Your task to perform on an android device: Open calendar and show me the third week of next month Image 0: 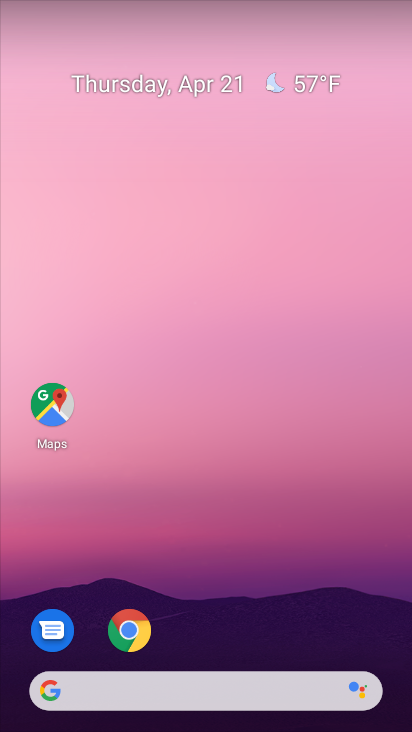
Step 0: drag from (319, 621) to (250, 92)
Your task to perform on an android device: Open calendar and show me the third week of next month Image 1: 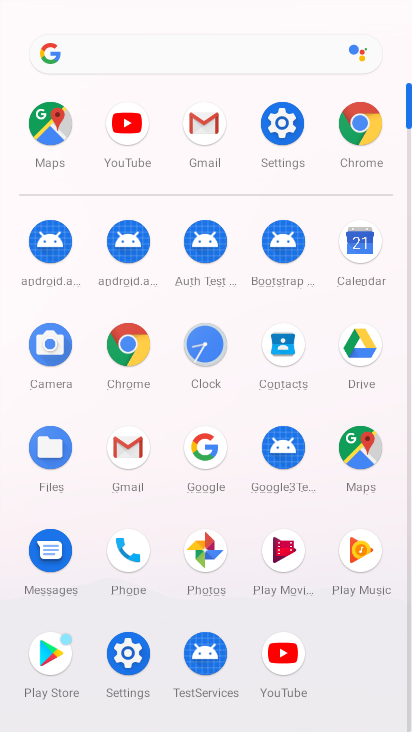
Step 1: click (363, 242)
Your task to perform on an android device: Open calendar and show me the third week of next month Image 2: 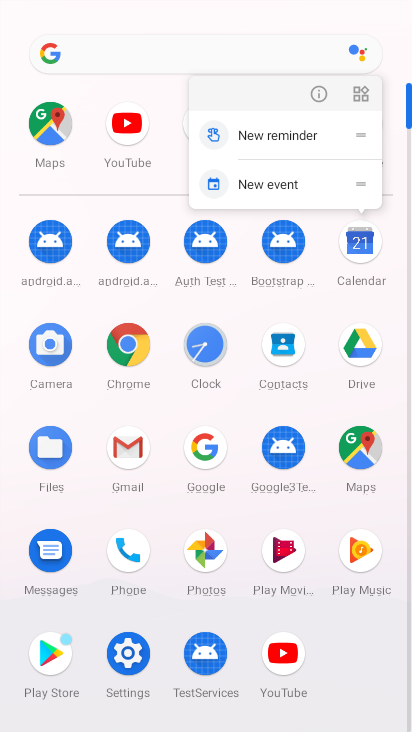
Step 2: click (352, 244)
Your task to perform on an android device: Open calendar and show me the third week of next month Image 3: 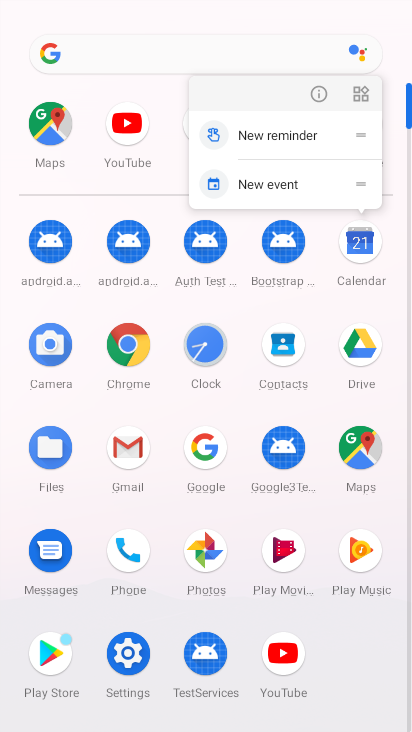
Step 3: click (352, 244)
Your task to perform on an android device: Open calendar and show me the third week of next month Image 4: 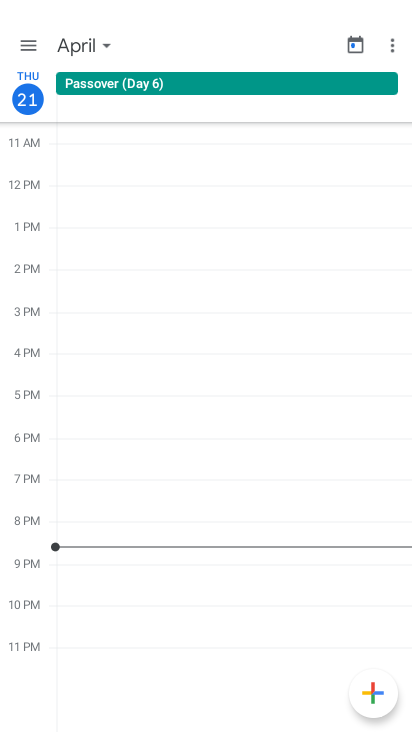
Step 4: click (76, 42)
Your task to perform on an android device: Open calendar and show me the third week of next month Image 5: 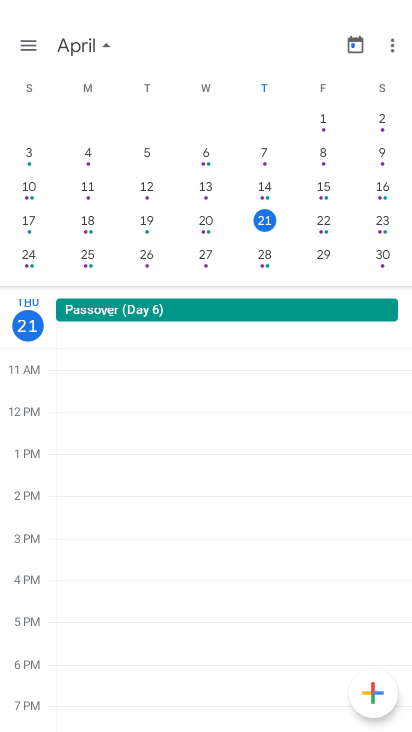
Step 5: drag from (274, 238) to (3, 143)
Your task to perform on an android device: Open calendar and show me the third week of next month Image 6: 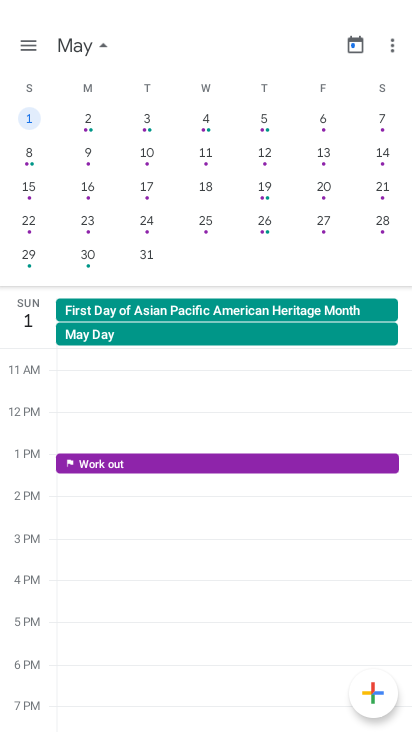
Step 6: click (263, 183)
Your task to perform on an android device: Open calendar and show me the third week of next month Image 7: 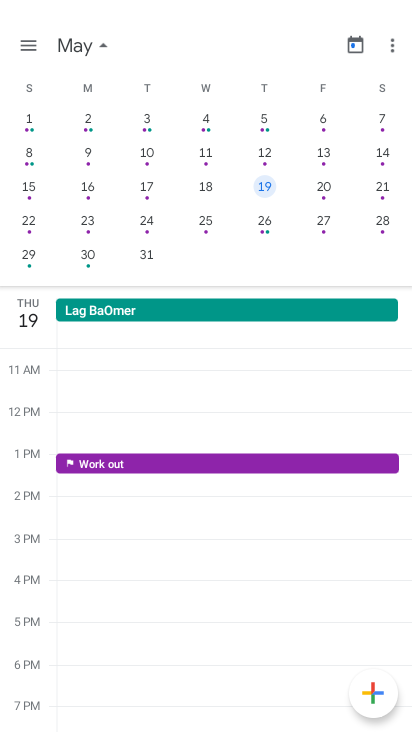
Step 7: task complete